Your task to perform on an android device: turn on notifications settings in the gmail app Image 0: 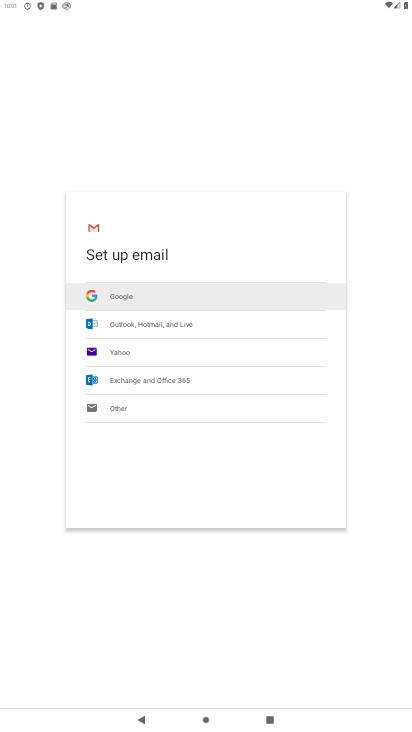
Step 0: press home button
Your task to perform on an android device: turn on notifications settings in the gmail app Image 1: 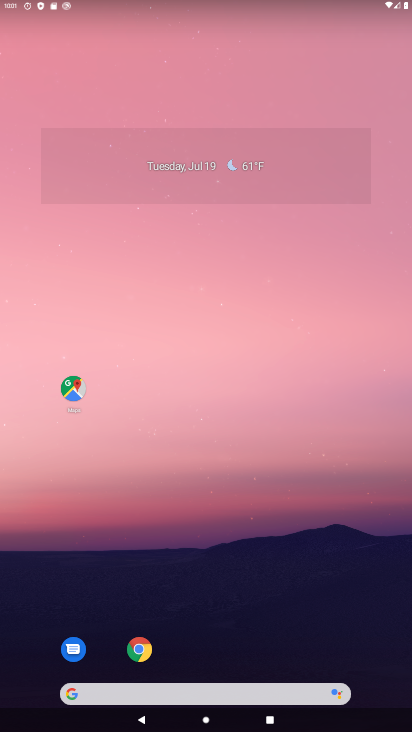
Step 1: drag from (243, 606) to (175, 186)
Your task to perform on an android device: turn on notifications settings in the gmail app Image 2: 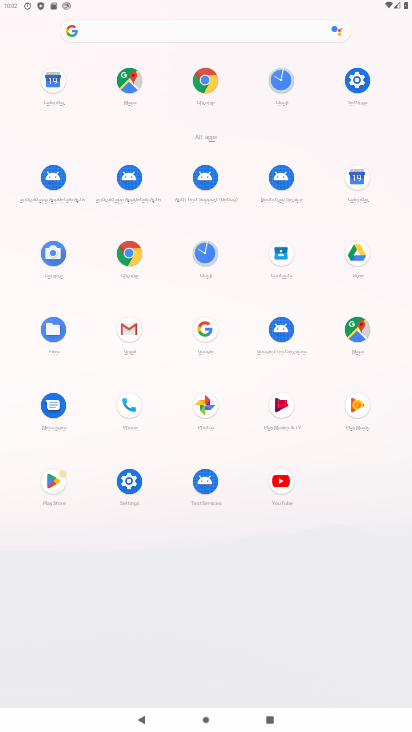
Step 2: click (126, 330)
Your task to perform on an android device: turn on notifications settings in the gmail app Image 3: 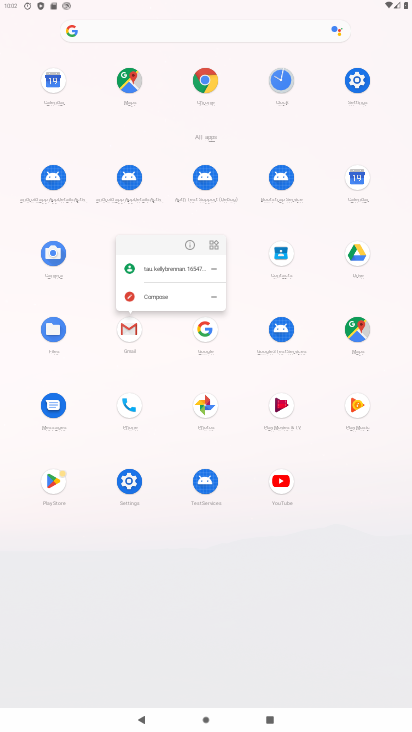
Step 3: click (190, 245)
Your task to perform on an android device: turn on notifications settings in the gmail app Image 4: 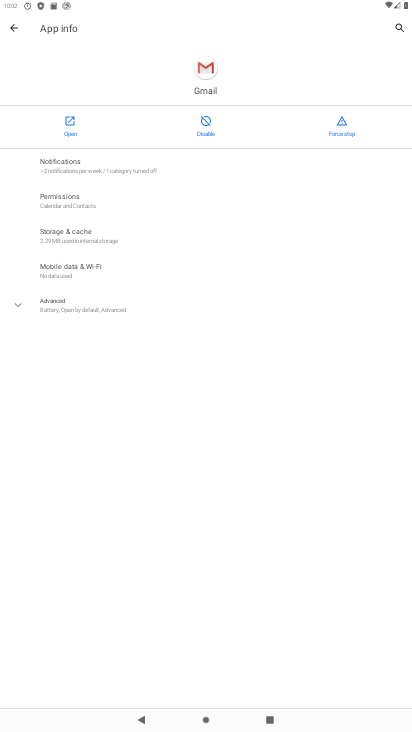
Step 4: click (95, 168)
Your task to perform on an android device: turn on notifications settings in the gmail app Image 5: 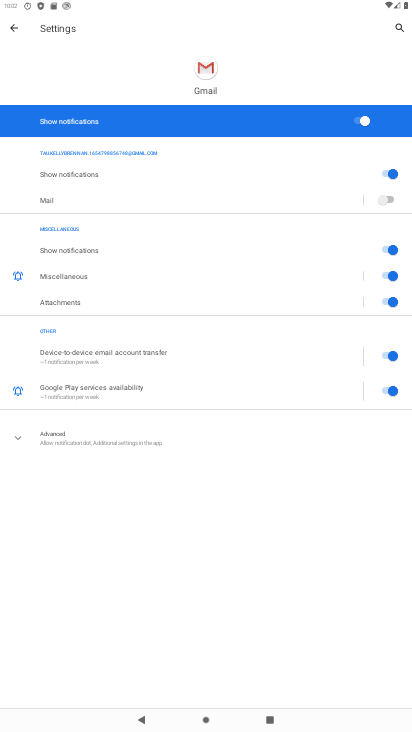
Step 5: click (383, 201)
Your task to perform on an android device: turn on notifications settings in the gmail app Image 6: 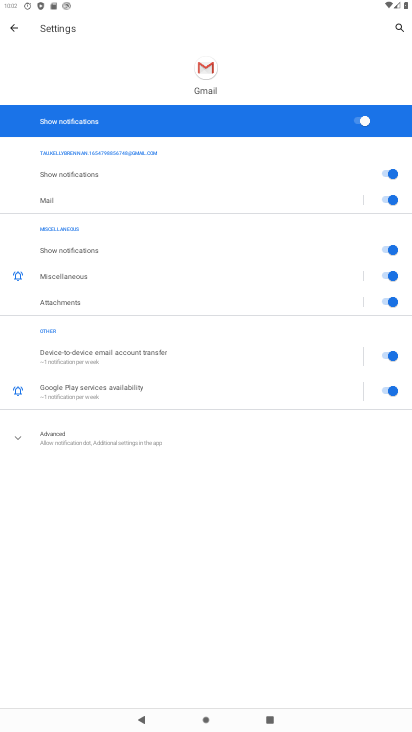
Step 6: task complete